Your task to perform on an android device: toggle translation in the chrome app Image 0: 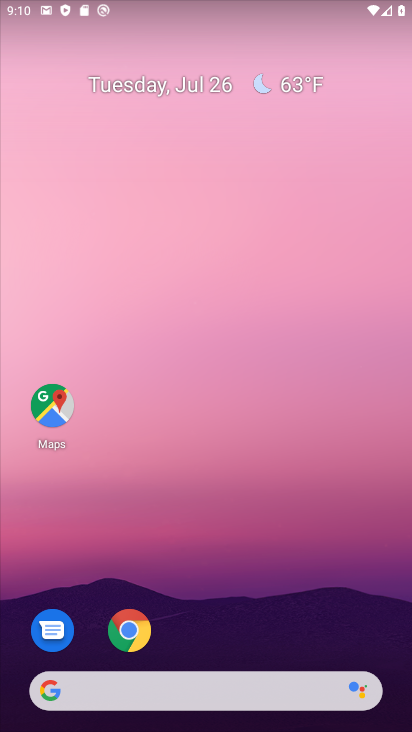
Step 0: drag from (218, 646) to (291, 137)
Your task to perform on an android device: toggle translation in the chrome app Image 1: 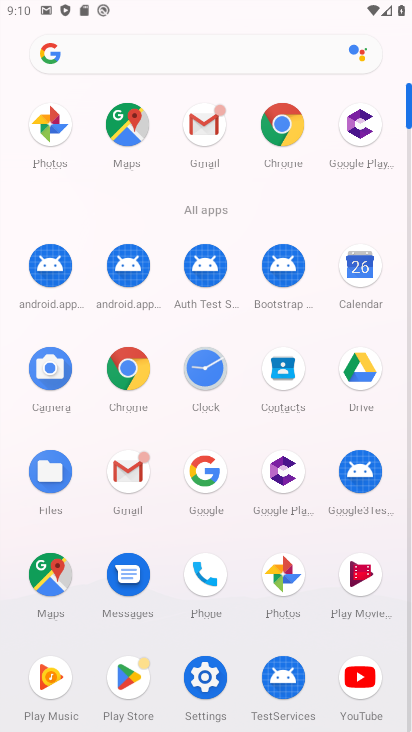
Step 1: click (279, 118)
Your task to perform on an android device: toggle translation in the chrome app Image 2: 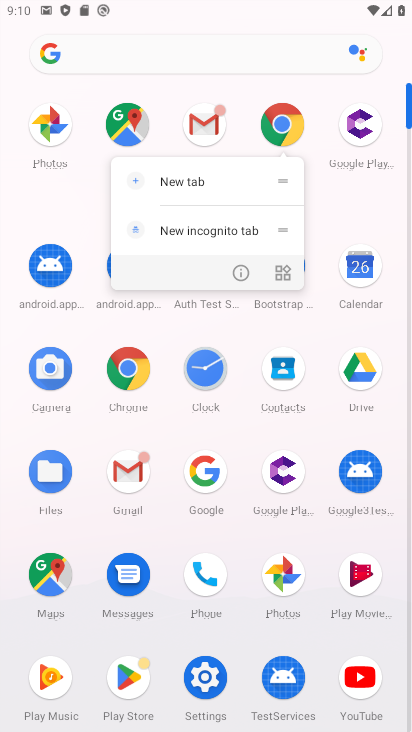
Step 2: click (279, 118)
Your task to perform on an android device: toggle translation in the chrome app Image 3: 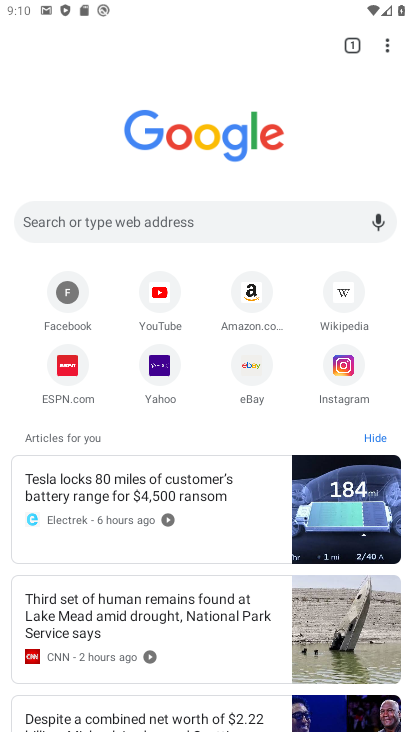
Step 3: click (385, 43)
Your task to perform on an android device: toggle translation in the chrome app Image 4: 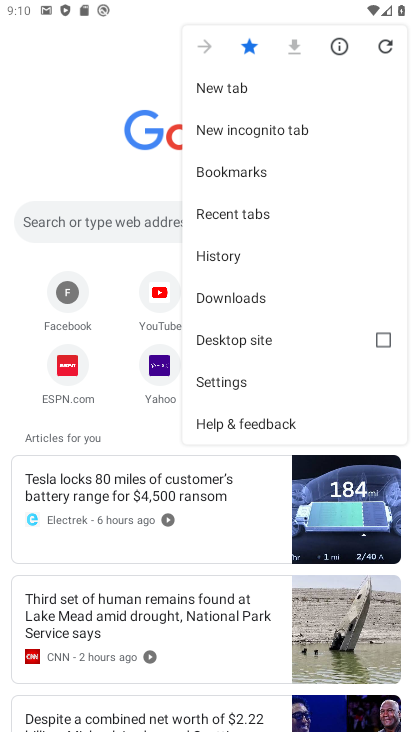
Step 4: click (246, 381)
Your task to perform on an android device: toggle translation in the chrome app Image 5: 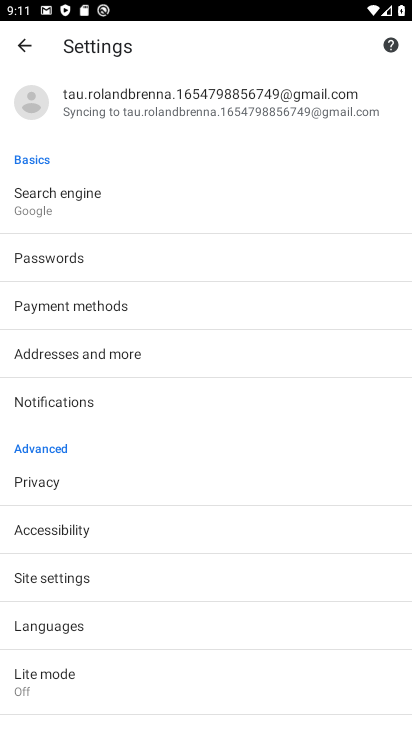
Step 5: click (103, 621)
Your task to perform on an android device: toggle translation in the chrome app Image 6: 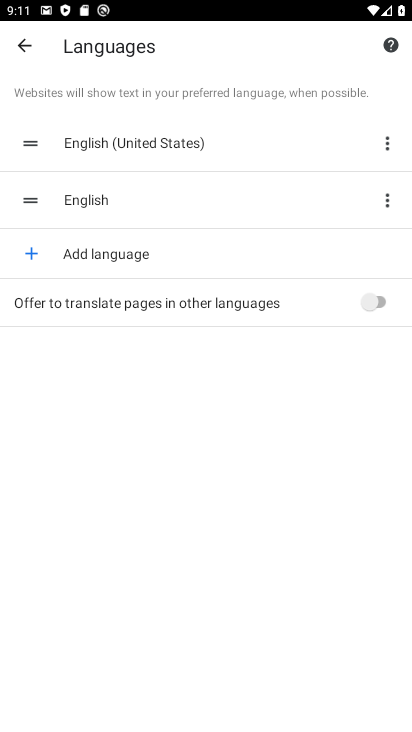
Step 6: click (384, 298)
Your task to perform on an android device: toggle translation in the chrome app Image 7: 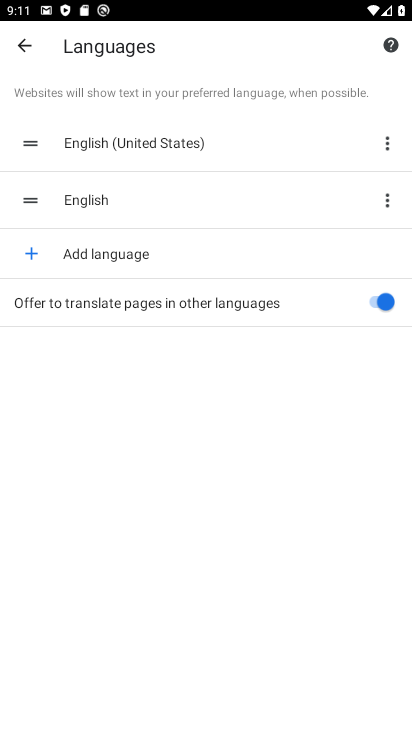
Step 7: task complete